Your task to perform on an android device: Is it going to rain this weekend? Image 0: 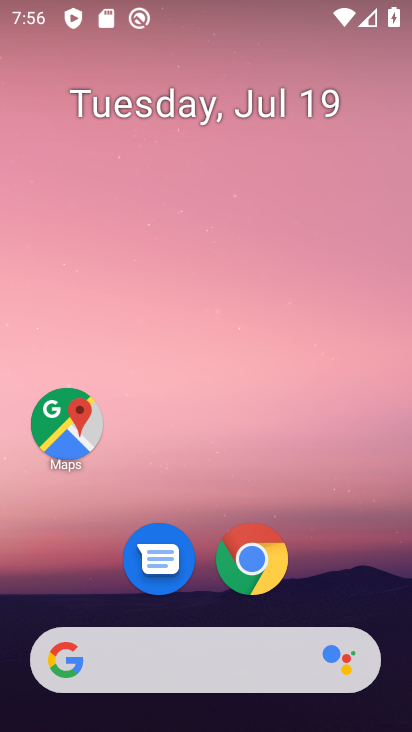
Step 0: click (135, 650)
Your task to perform on an android device: Is it going to rain this weekend? Image 1: 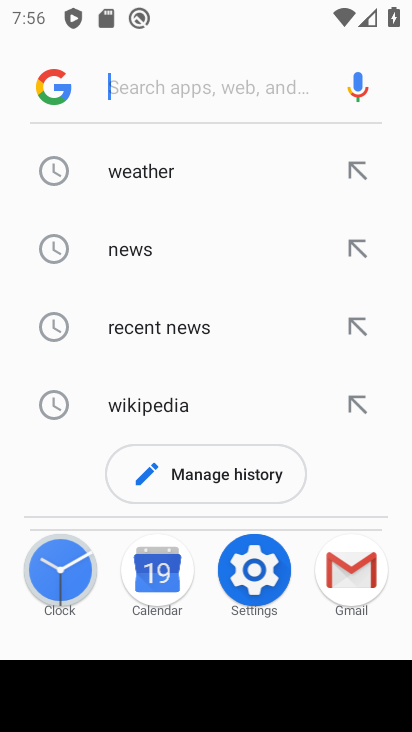
Step 1: click (155, 176)
Your task to perform on an android device: Is it going to rain this weekend? Image 2: 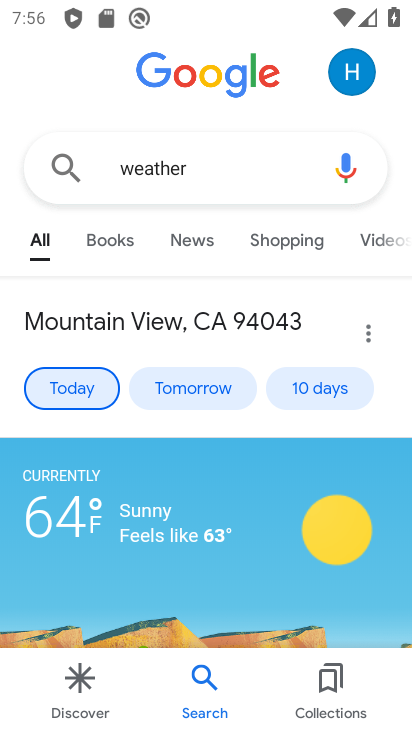
Step 2: click (305, 392)
Your task to perform on an android device: Is it going to rain this weekend? Image 3: 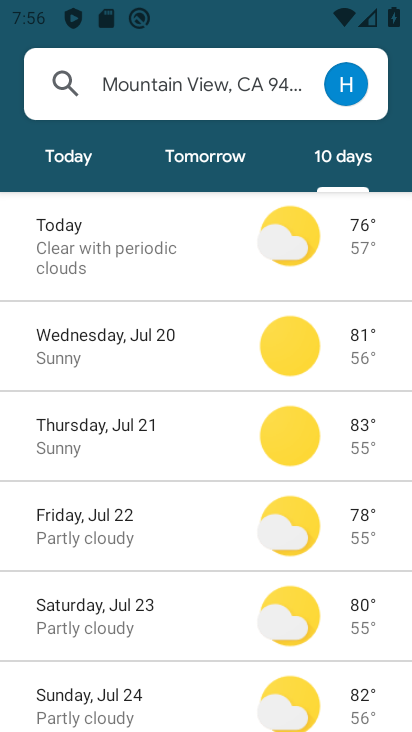
Step 3: task complete